Your task to perform on an android device: turn on javascript in the chrome app Image 0: 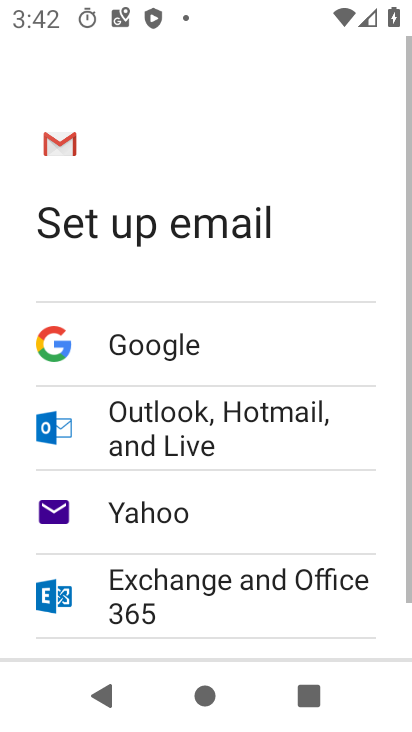
Step 0: press home button
Your task to perform on an android device: turn on javascript in the chrome app Image 1: 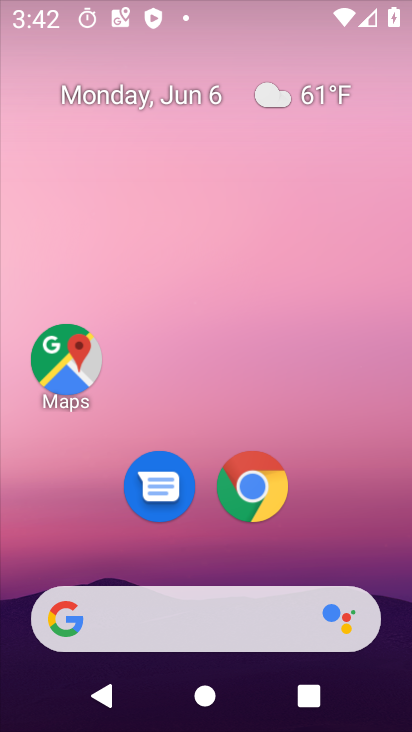
Step 1: drag from (345, 541) to (246, 161)
Your task to perform on an android device: turn on javascript in the chrome app Image 2: 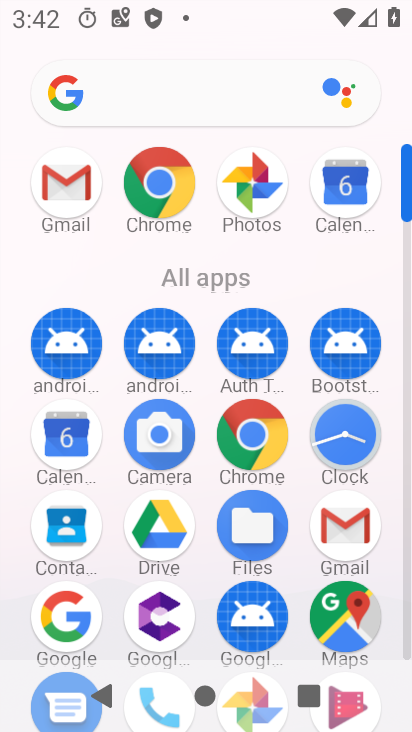
Step 2: click (170, 181)
Your task to perform on an android device: turn on javascript in the chrome app Image 3: 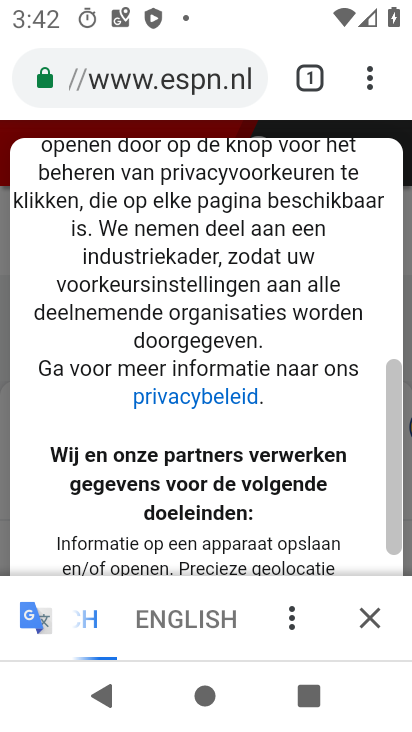
Step 3: drag from (377, 73) to (223, 534)
Your task to perform on an android device: turn on javascript in the chrome app Image 4: 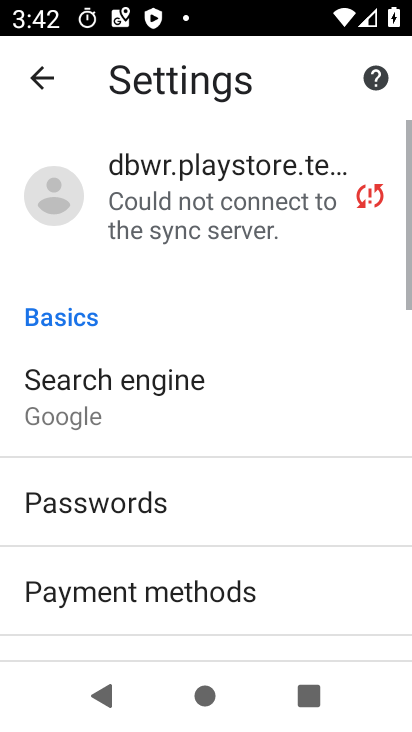
Step 4: drag from (227, 527) to (199, 92)
Your task to perform on an android device: turn on javascript in the chrome app Image 5: 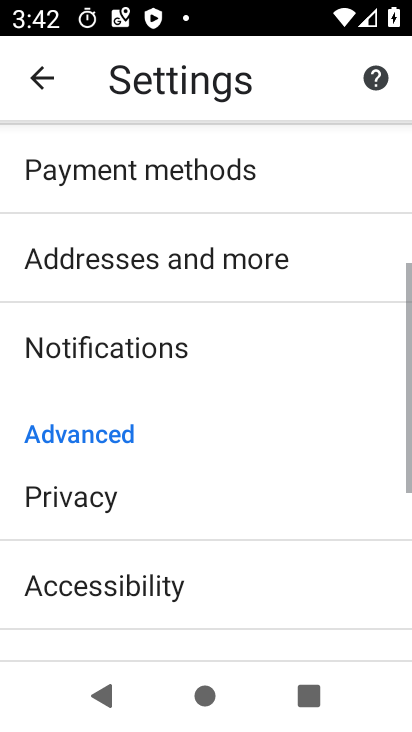
Step 5: drag from (180, 527) to (226, 179)
Your task to perform on an android device: turn on javascript in the chrome app Image 6: 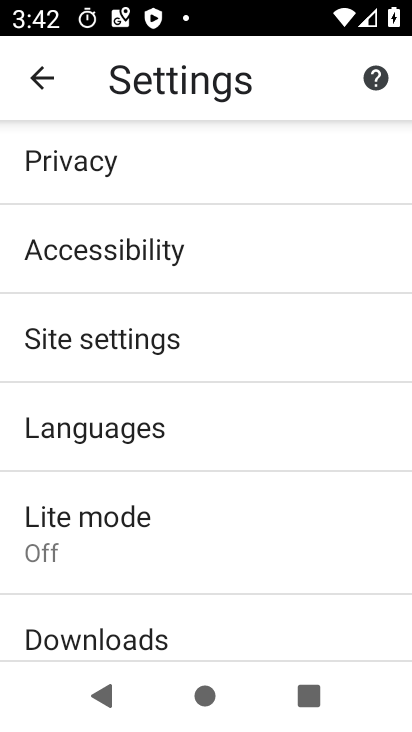
Step 6: click (169, 347)
Your task to perform on an android device: turn on javascript in the chrome app Image 7: 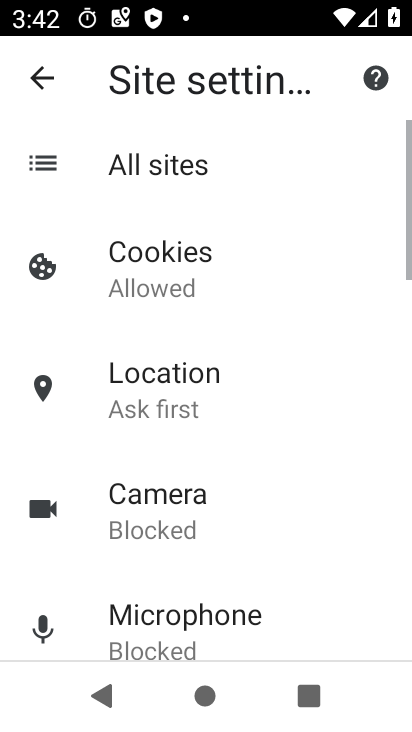
Step 7: drag from (230, 606) to (279, 224)
Your task to perform on an android device: turn on javascript in the chrome app Image 8: 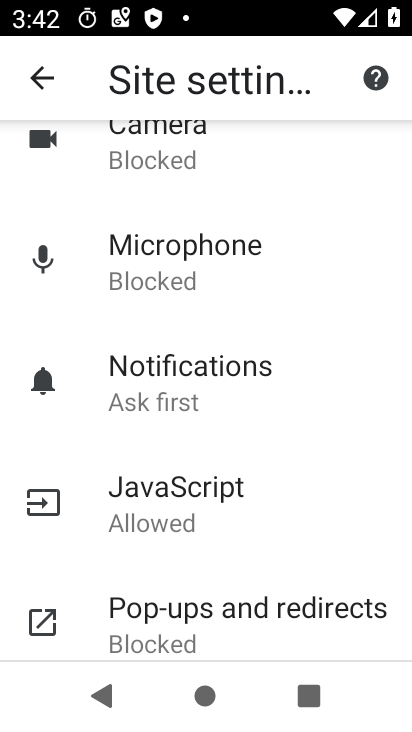
Step 8: click (198, 509)
Your task to perform on an android device: turn on javascript in the chrome app Image 9: 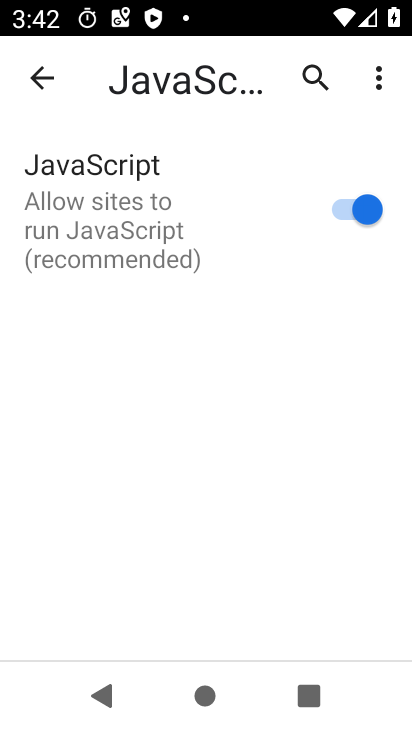
Step 9: task complete